Your task to perform on an android device: toggle wifi Image 0: 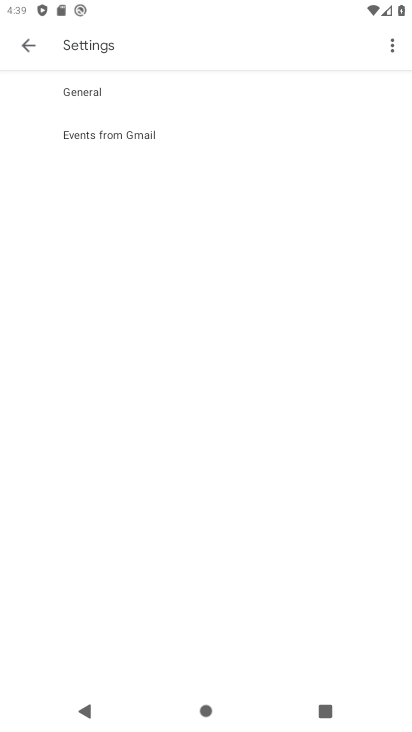
Step 0: press home button
Your task to perform on an android device: toggle wifi Image 1: 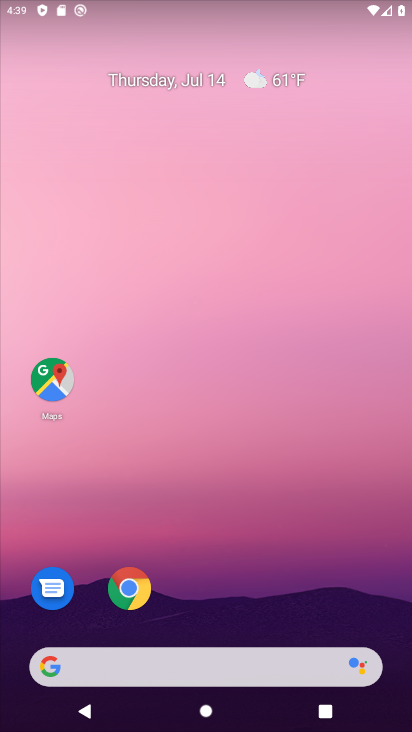
Step 1: drag from (291, 602) to (154, 75)
Your task to perform on an android device: toggle wifi Image 2: 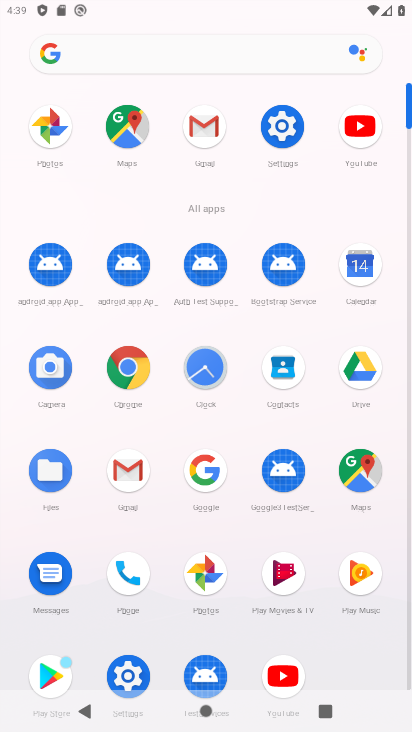
Step 2: click (283, 135)
Your task to perform on an android device: toggle wifi Image 3: 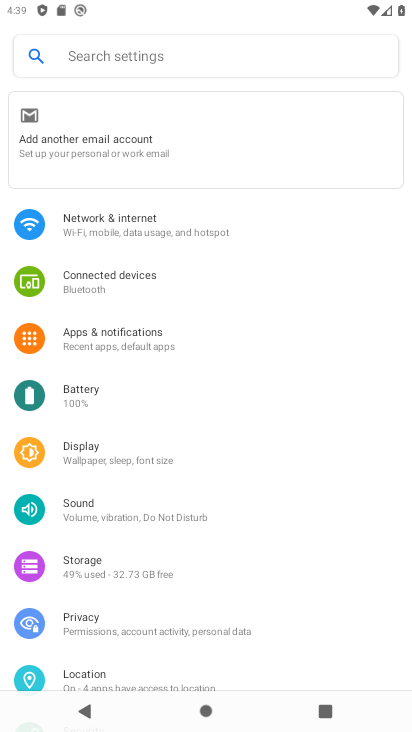
Step 3: click (244, 217)
Your task to perform on an android device: toggle wifi Image 4: 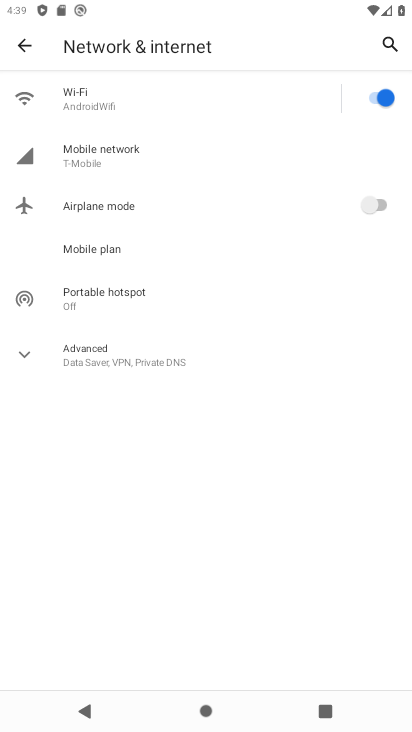
Step 4: click (380, 101)
Your task to perform on an android device: toggle wifi Image 5: 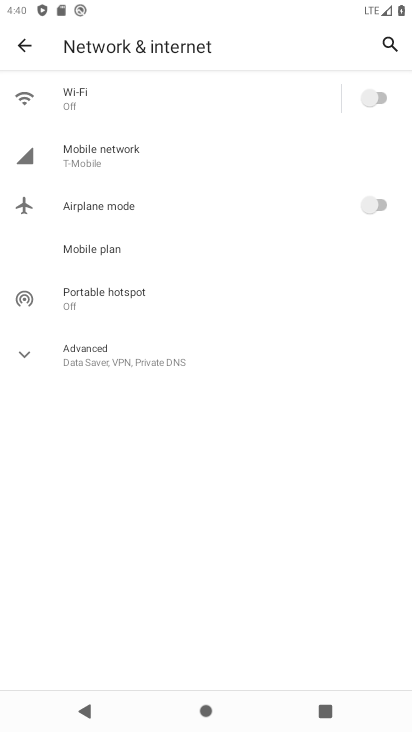
Step 5: task complete